Your task to perform on an android device: open device folders in google photos Image 0: 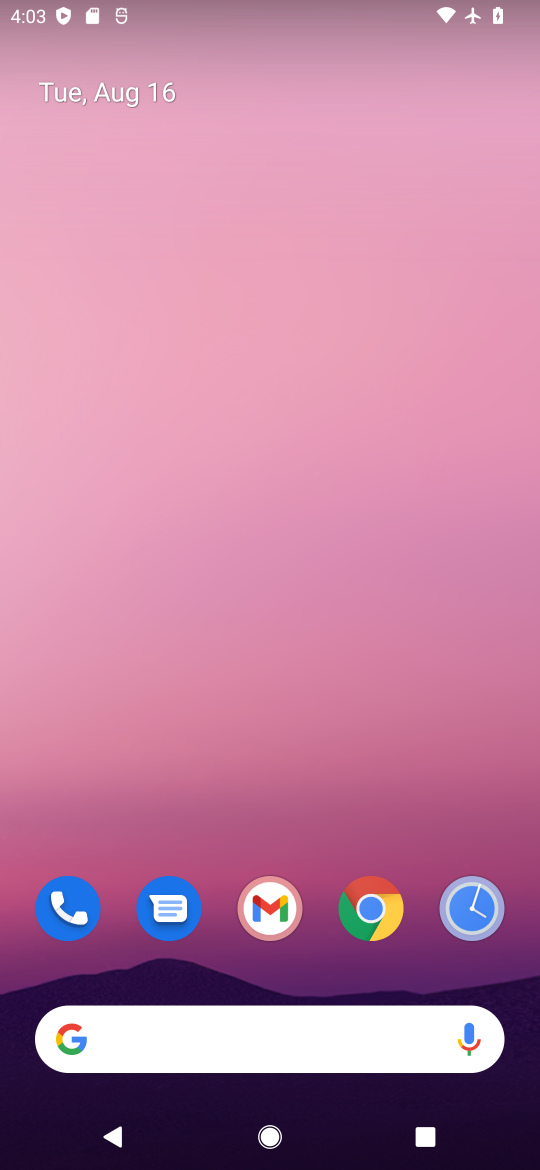
Step 0: press home button
Your task to perform on an android device: open device folders in google photos Image 1: 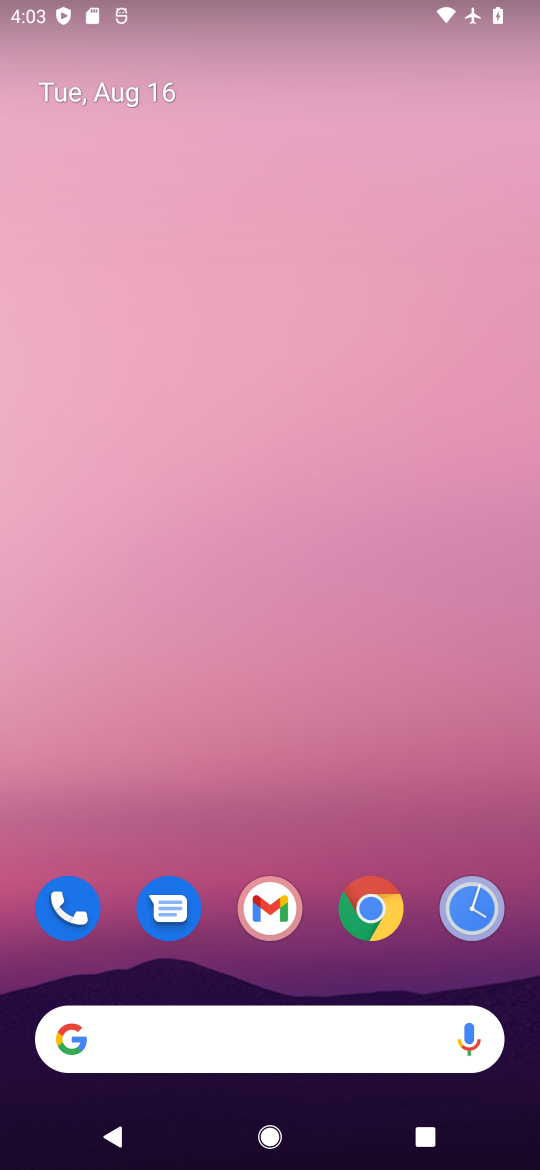
Step 1: drag from (326, 964) to (319, 2)
Your task to perform on an android device: open device folders in google photos Image 2: 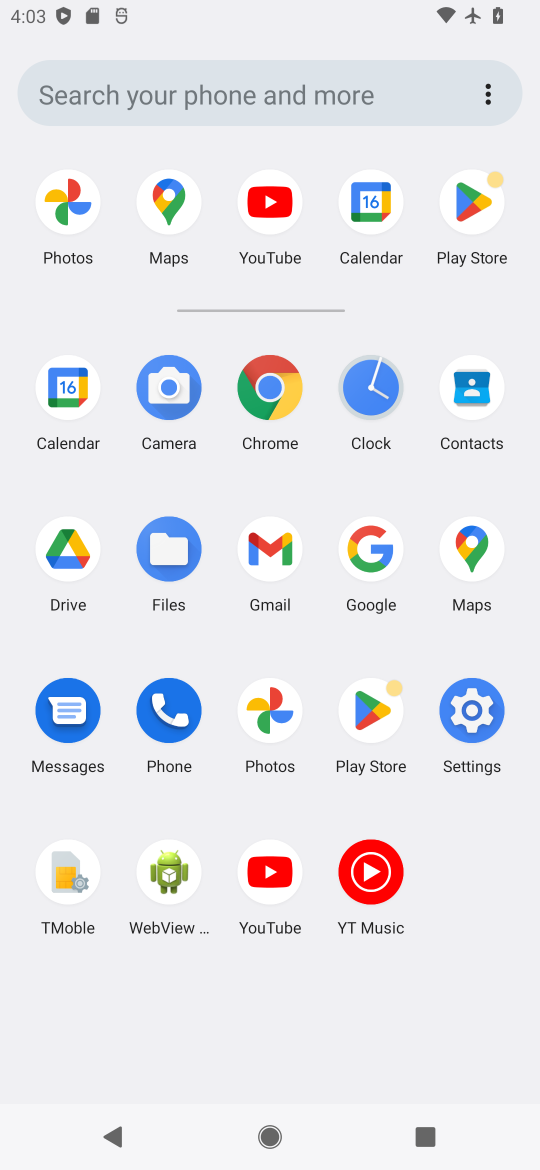
Step 2: click (265, 698)
Your task to perform on an android device: open device folders in google photos Image 3: 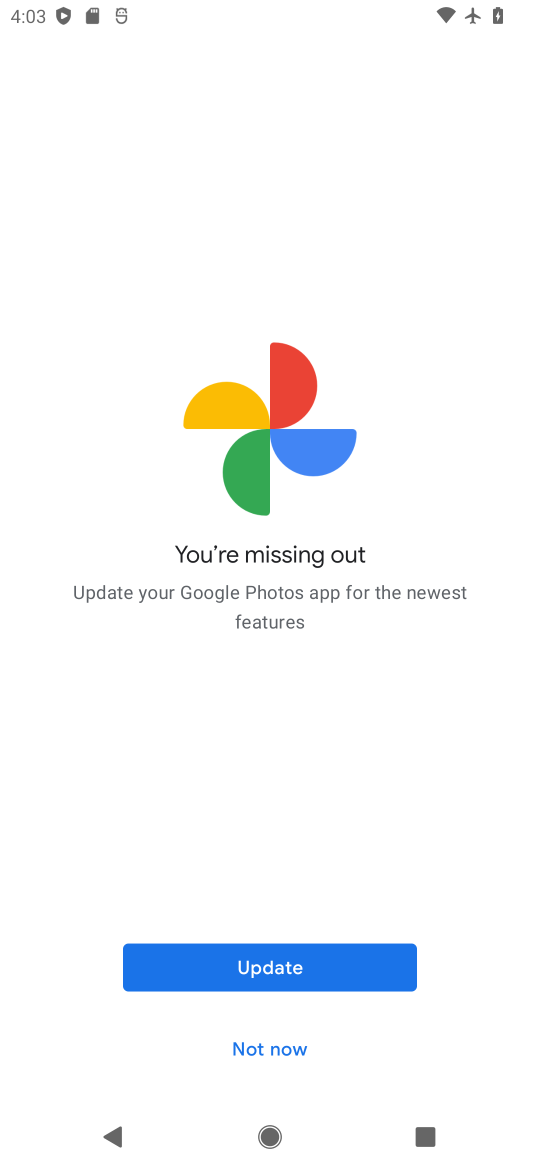
Step 3: click (266, 961)
Your task to perform on an android device: open device folders in google photos Image 4: 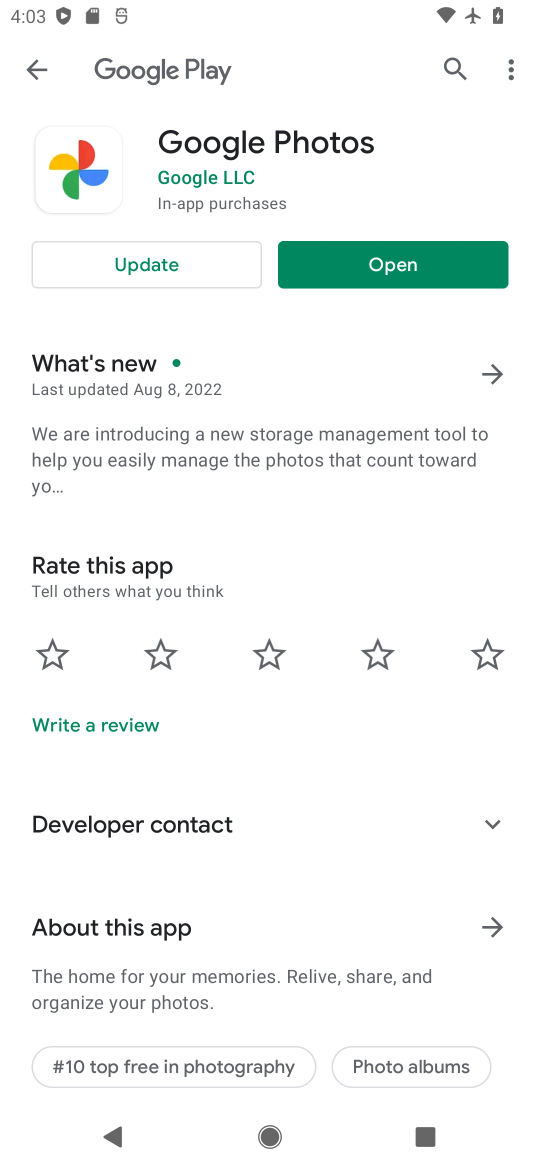
Step 4: click (205, 273)
Your task to perform on an android device: open device folders in google photos Image 5: 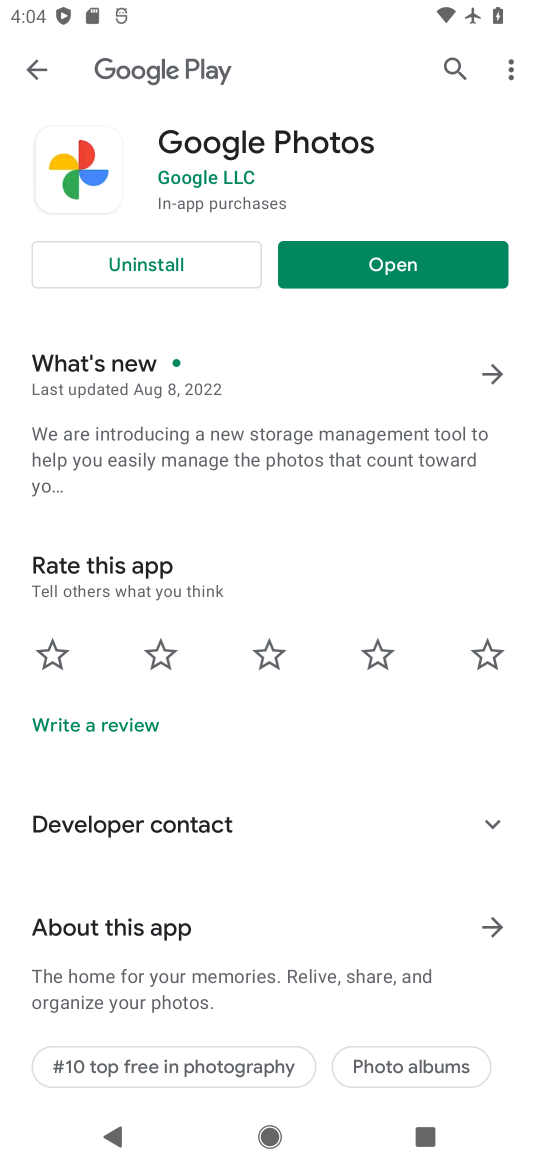
Step 5: click (383, 266)
Your task to perform on an android device: open device folders in google photos Image 6: 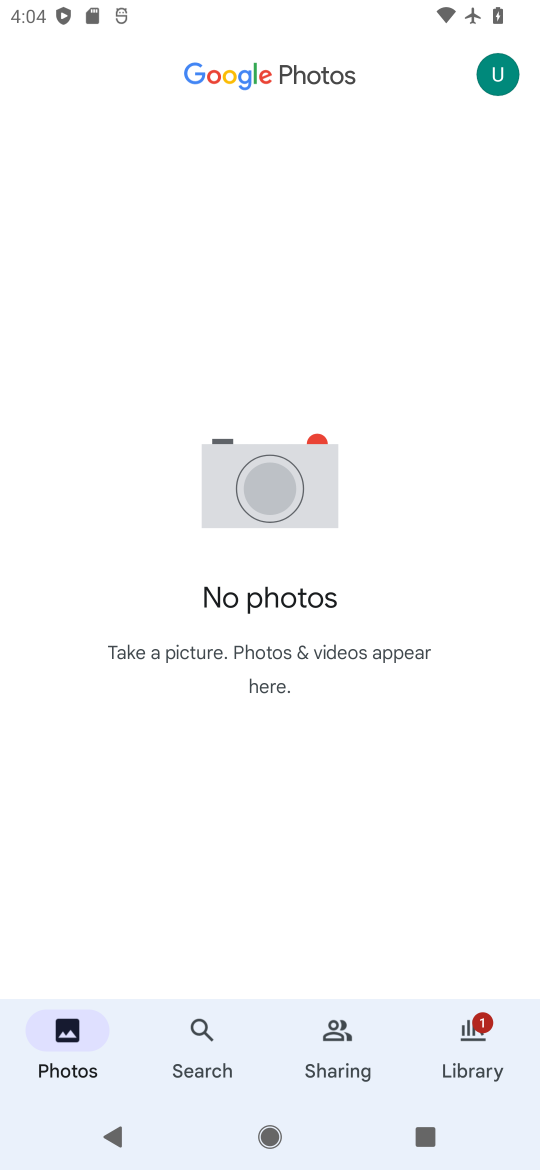
Step 6: click (194, 1033)
Your task to perform on an android device: open device folders in google photos Image 7: 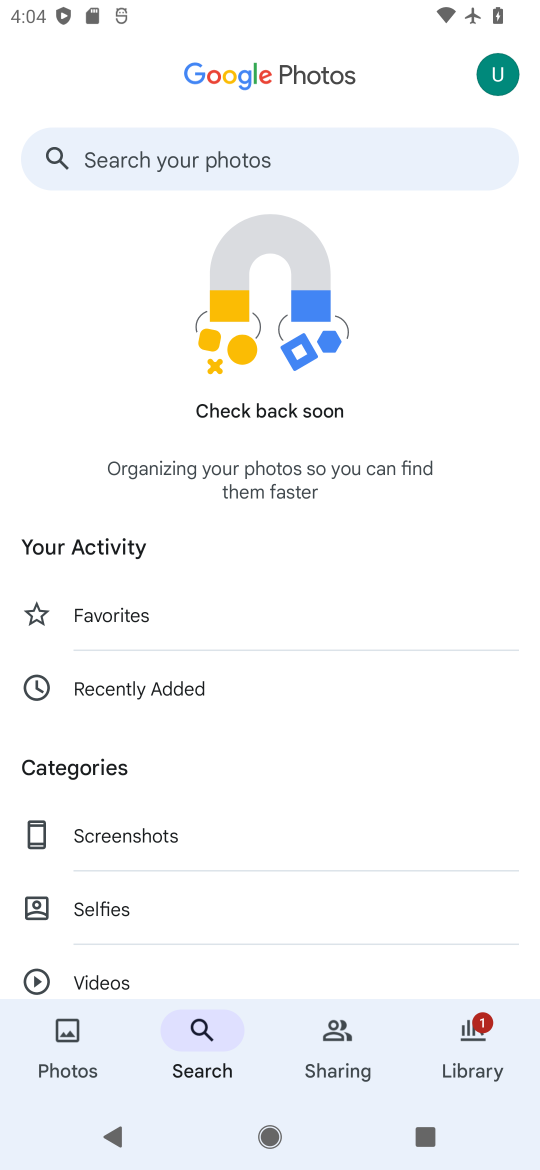
Step 7: click (144, 151)
Your task to perform on an android device: open device folders in google photos Image 8: 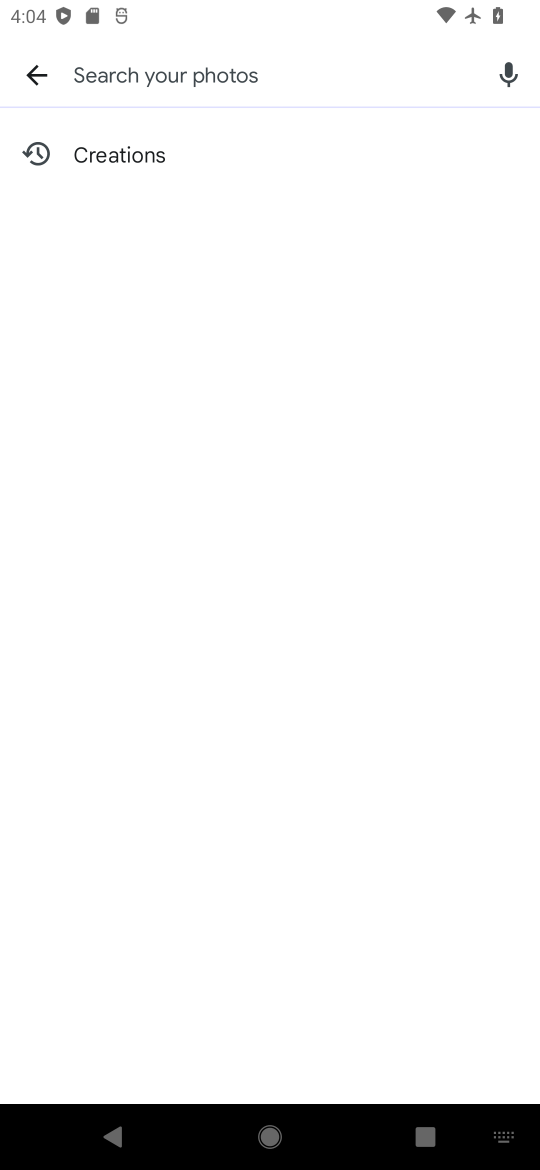
Step 8: type "device folders"
Your task to perform on an android device: open device folders in google photos Image 9: 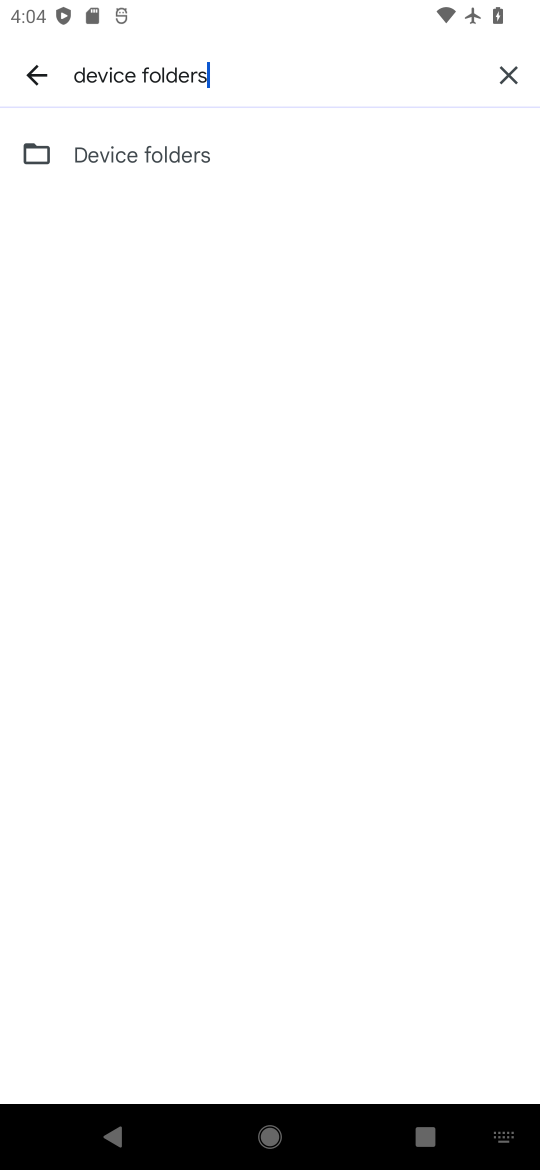
Step 9: click (149, 161)
Your task to perform on an android device: open device folders in google photos Image 10: 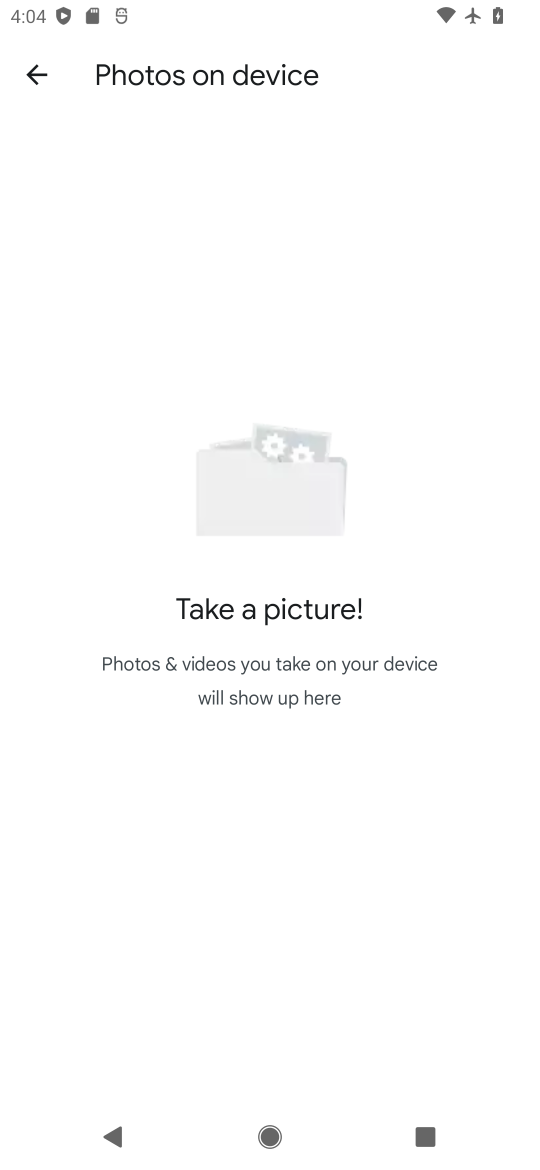
Step 10: task complete